Your task to perform on an android device: change the clock display to digital Image 0: 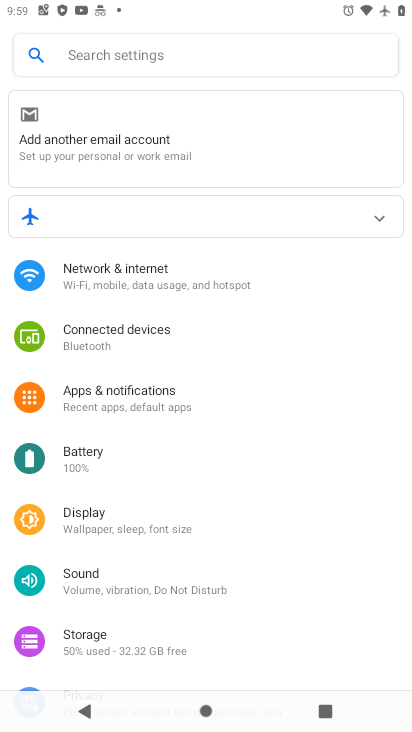
Step 0: press home button
Your task to perform on an android device: change the clock display to digital Image 1: 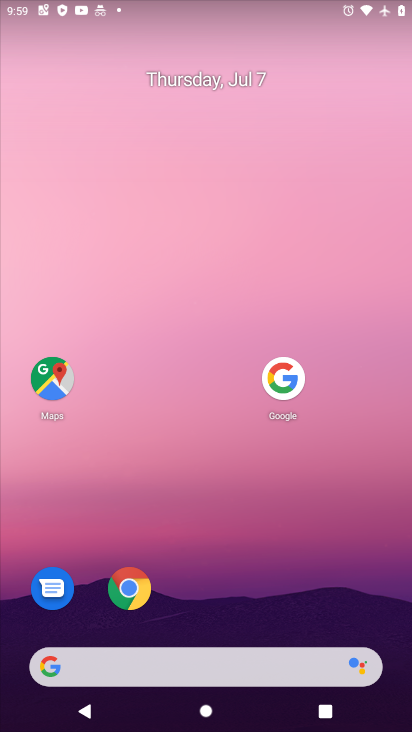
Step 1: drag from (186, 670) to (293, 81)
Your task to perform on an android device: change the clock display to digital Image 2: 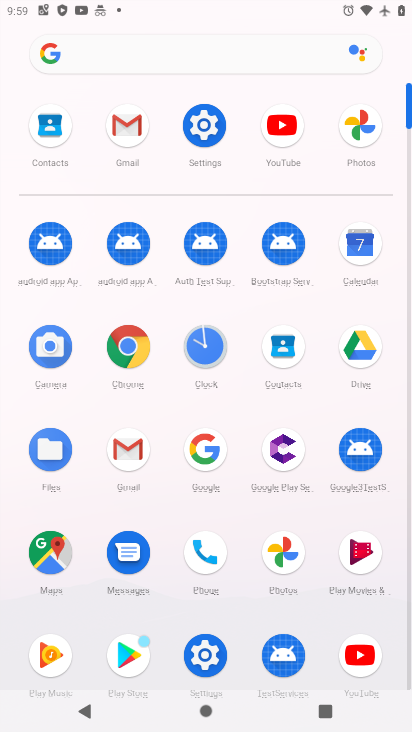
Step 2: click (206, 346)
Your task to perform on an android device: change the clock display to digital Image 3: 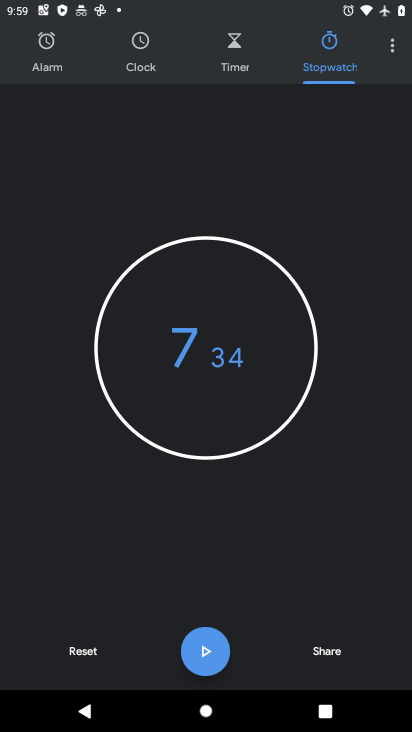
Step 3: click (390, 49)
Your task to perform on an android device: change the clock display to digital Image 4: 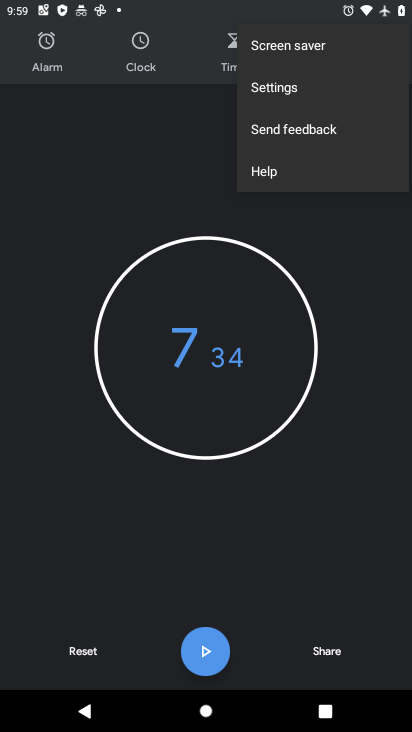
Step 4: click (285, 84)
Your task to perform on an android device: change the clock display to digital Image 5: 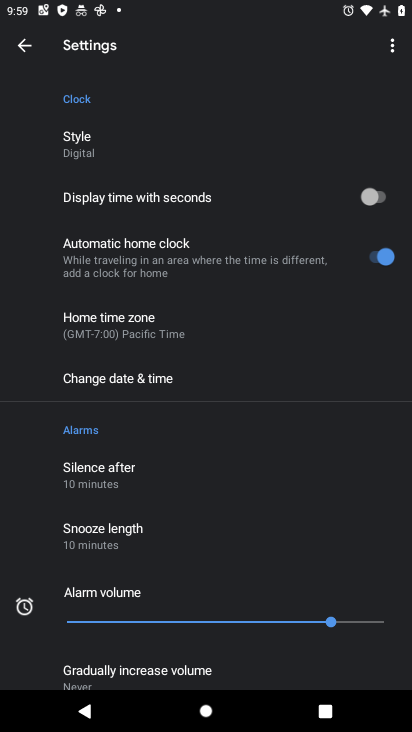
Step 5: click (98, 157)
Your task to perform on an android device: change the clock display to digital Image 6: 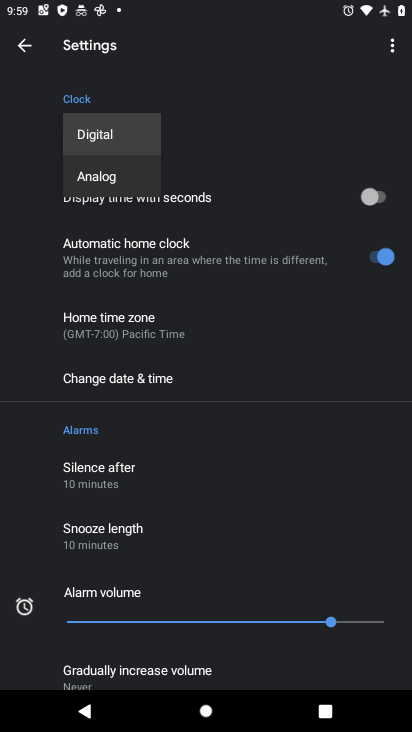
Step 6: task complete